Your task to perform on an android device: turn off airplane mode Image 0: 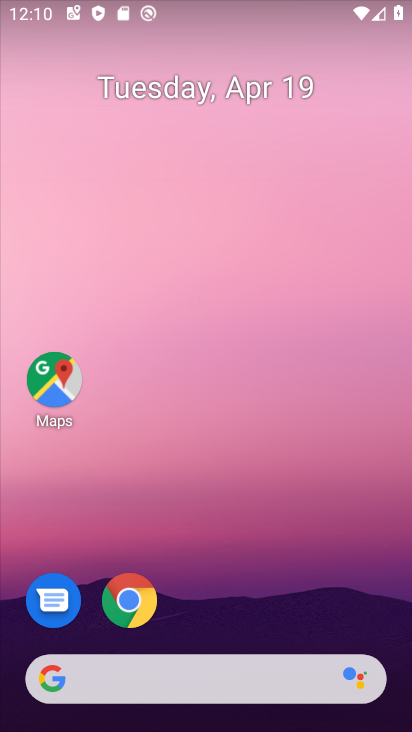
Step 0: drag from (218, 637) to (213, 370)
Your task to perform on an android device: turn off airplane mode Image 1: 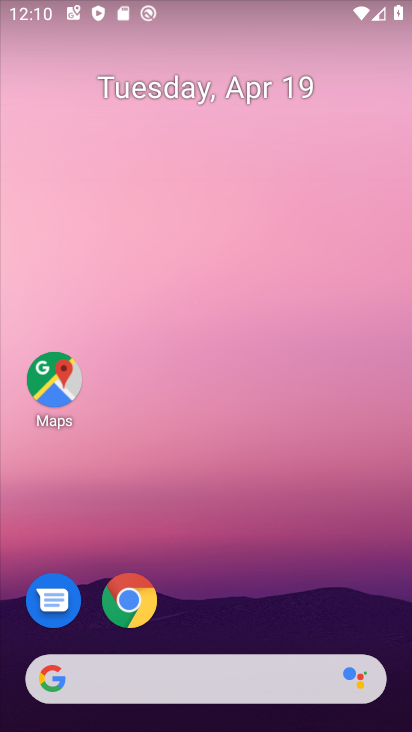
Step 1: drag from (213, 589) to (198, 80)
Your task to perform on an android device: turn off airplane mode Image 2: 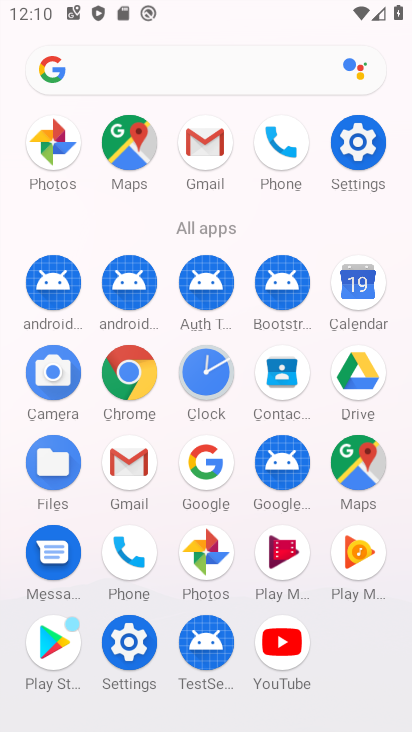
Step 2: click (352, 143)
Your task to perform on an android device: turn off airplane mode Image 3: 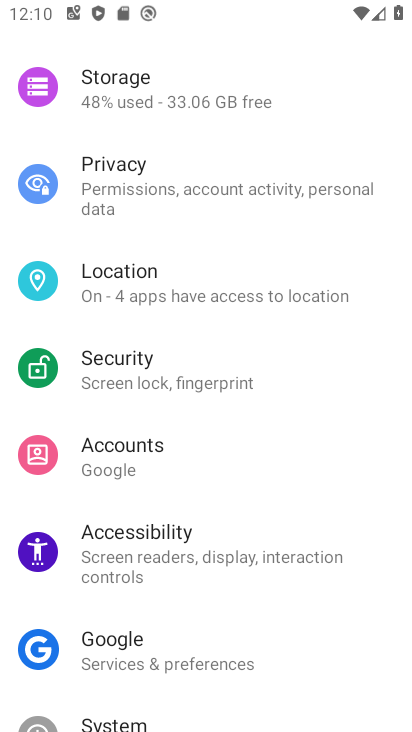
Step 3: drag from (221, 123) to (219, 638)
Your task to perform on an android device: turn off airplane mode Image 4: 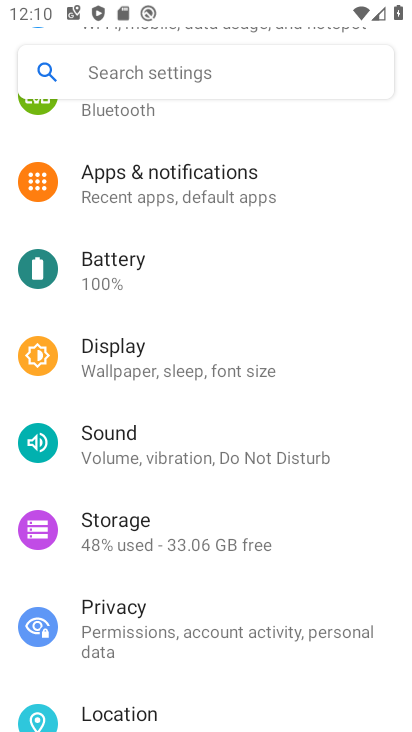
Step 4: drag from (176, 302) to (195, 579)
Your task to perform on an android device: turn off airplane mode Image 5: 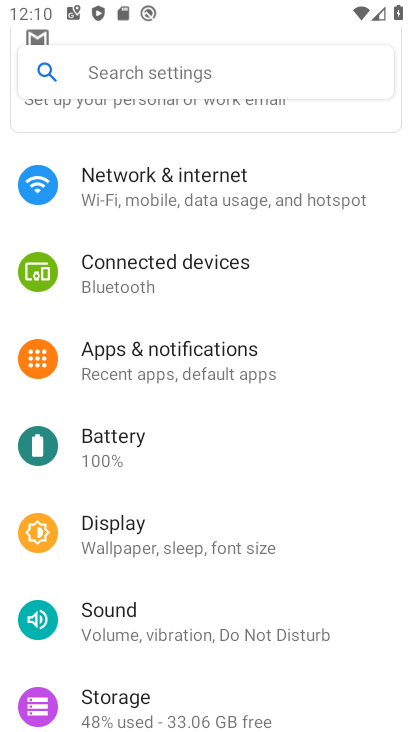
Step 5: drag from (145, 163) to (225, 623)
Your task to perform on an android device: turn off airplane mode Image 6: 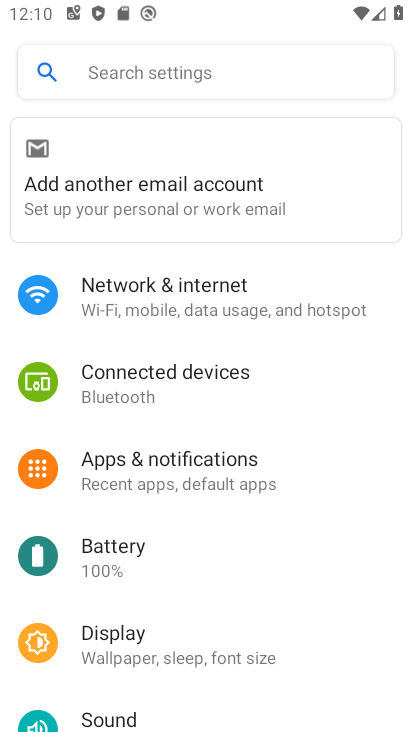
Step 6: click (182, 323)
Your task to perform on an android device: turn off airplane mode Image 7: 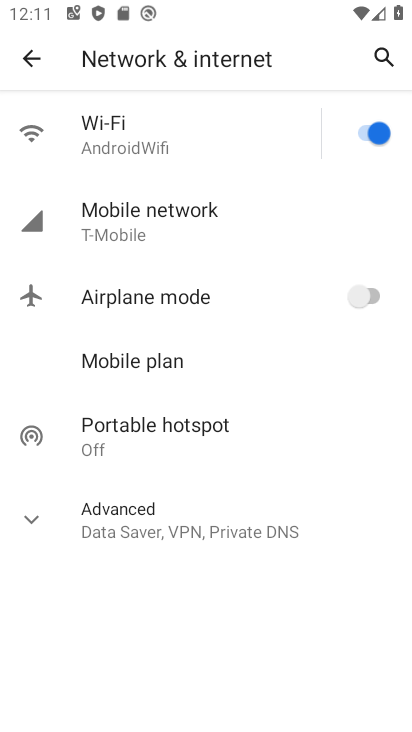
Step 7: task complete